Your task to perform on an android device: Open privacy settings Image 0: 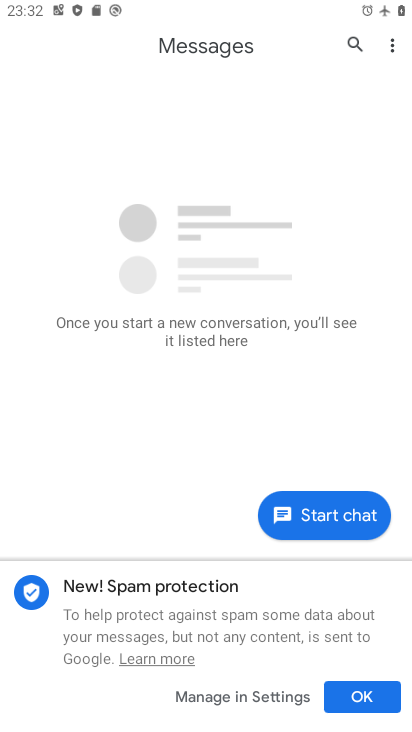
Step 0: press home button
Your task to perform on an android device: Open privacy settings Image 1: 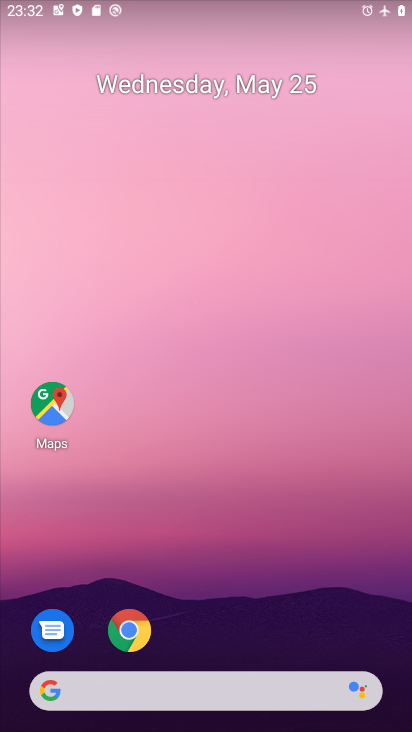
Step 1: drag from (231, 649) to (248, 241)
Your task to perform on an android device: Open privacy settings Image 2: 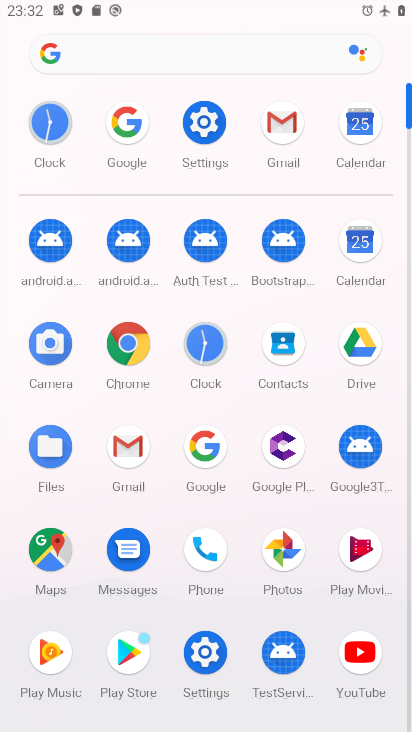
Step 2: click (201, 120)
Your task to perform on an android device: Open privacy settings Image 3: 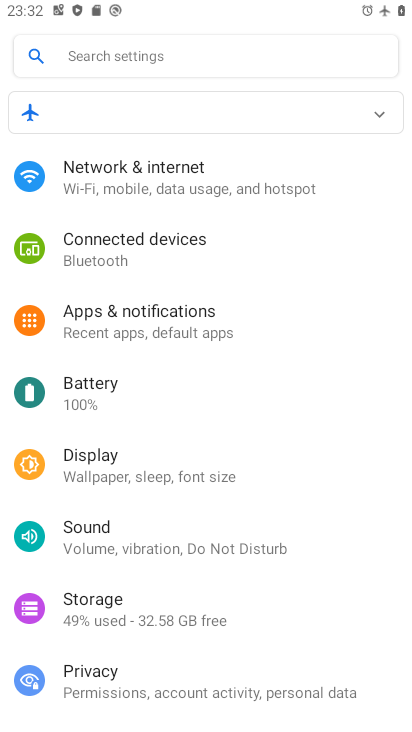
Step 3: click (138, 669)
Your task to perform on an android device: Open privacy settings Image 4: 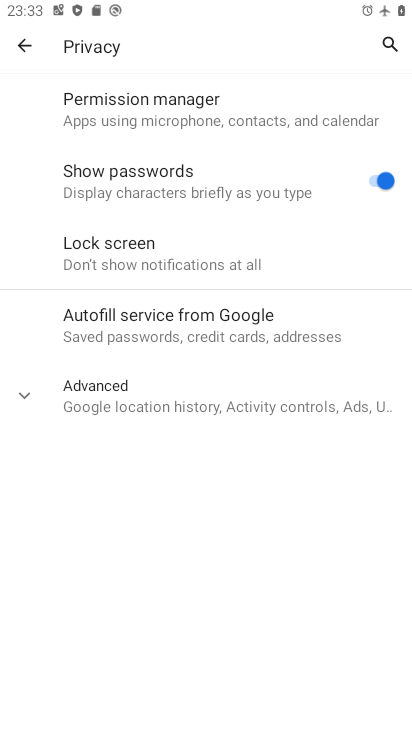
Step 4: task complete